Your task to perform on an android device: Turn off the flashlight Image 0: 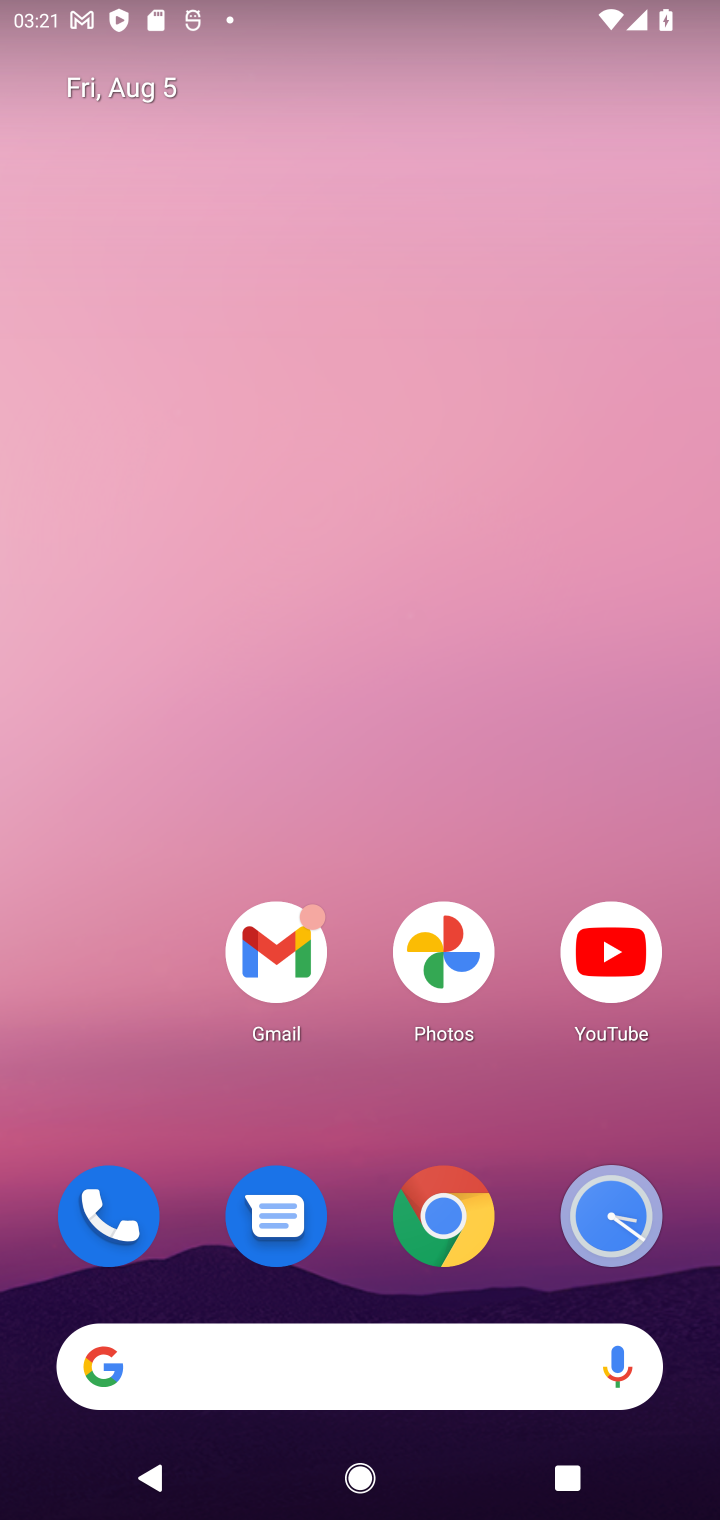
Step 0: drag from (268, 21) to (466, 1454)
Your task to perform on an android device: Turn off the flashlight Image 1: 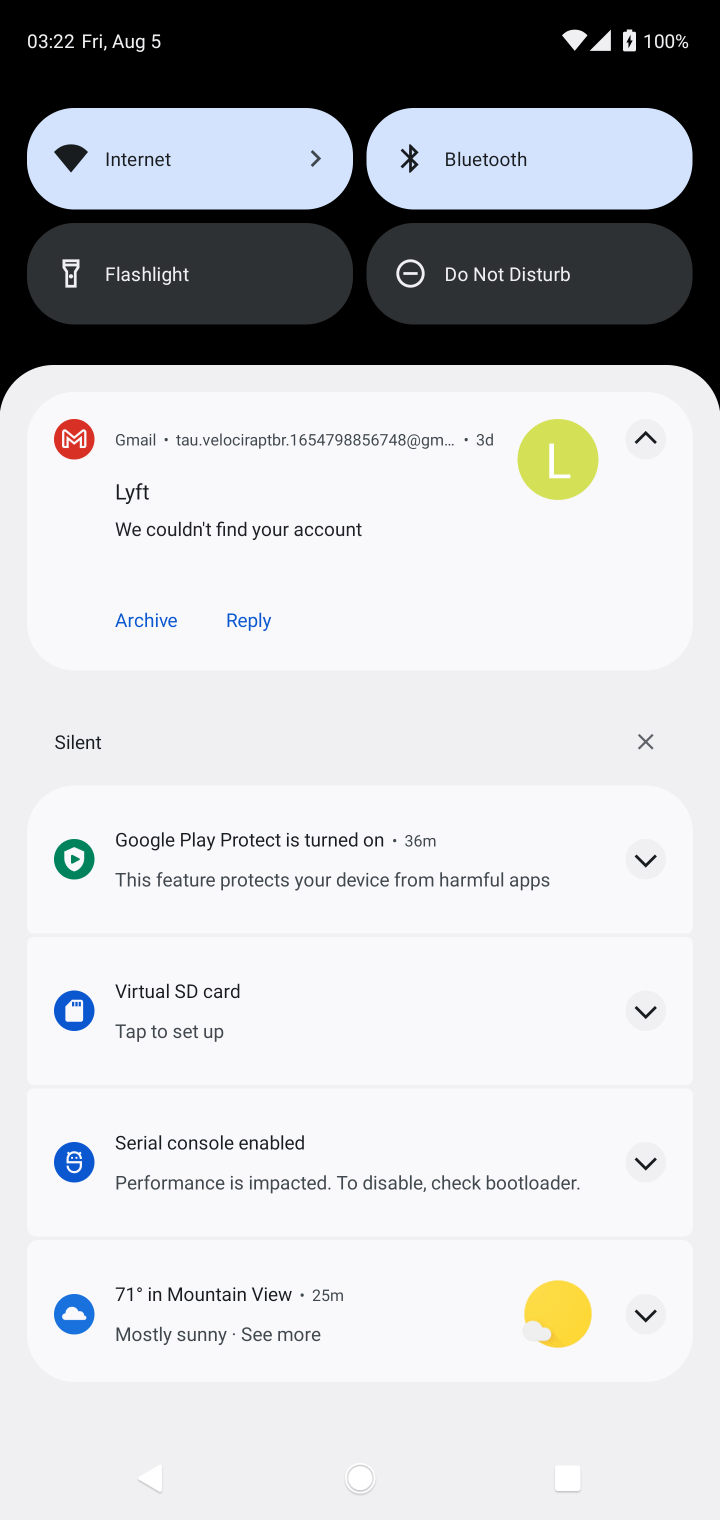
Step 1: task complete